Your task to perform on an android device: turn pop-ups off in chrome Image 0: 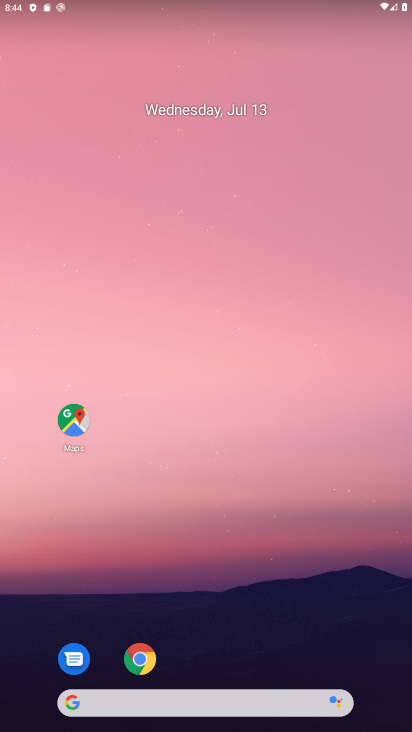
Step 0: click (136, 660)
Your task to perform on an android device: turn pop-ups off in chrome Image 1: 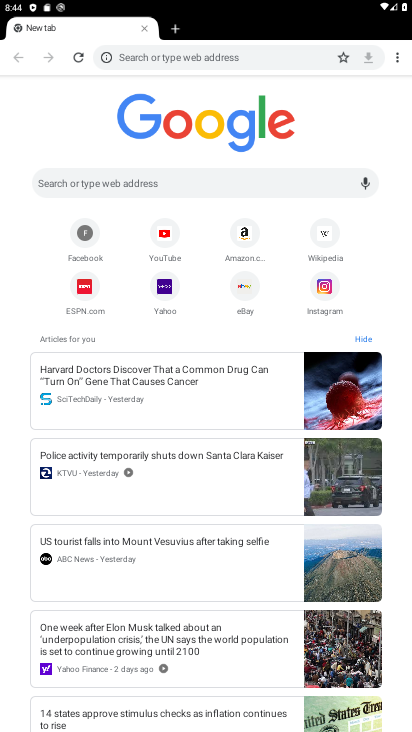
Step 1: click (393, 65)
Your task to perform on an android device: turn pop-ups off in chrome Image 2: 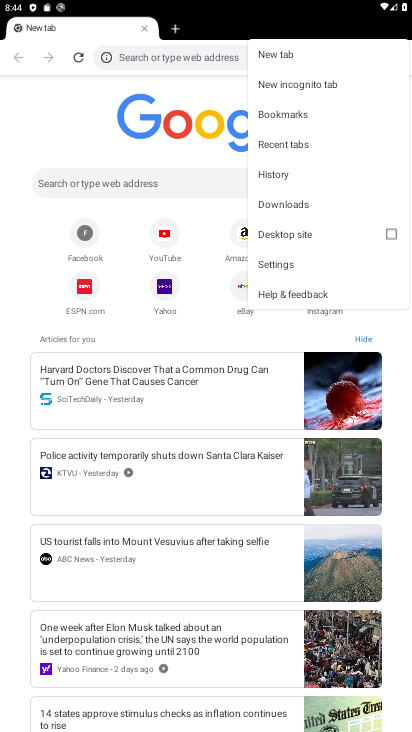
Step 2: click (302, 274)
Your task to perform on an android device: turn pop-ups off in chrome Image 3: 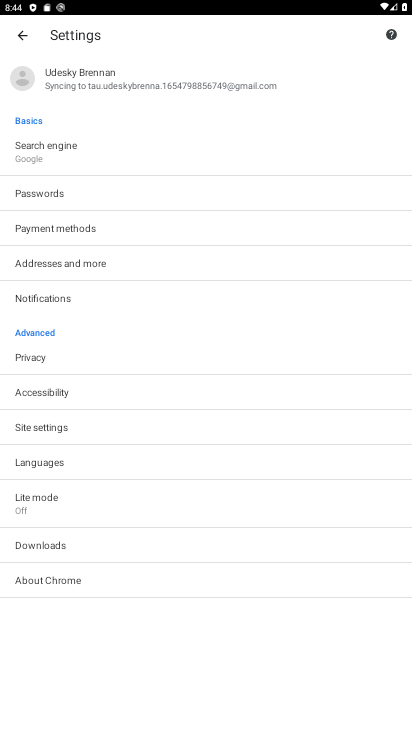
Step 3: click (58, 430)
Your task to perform on an android device: turn pop-ups off in chrome Image 4: 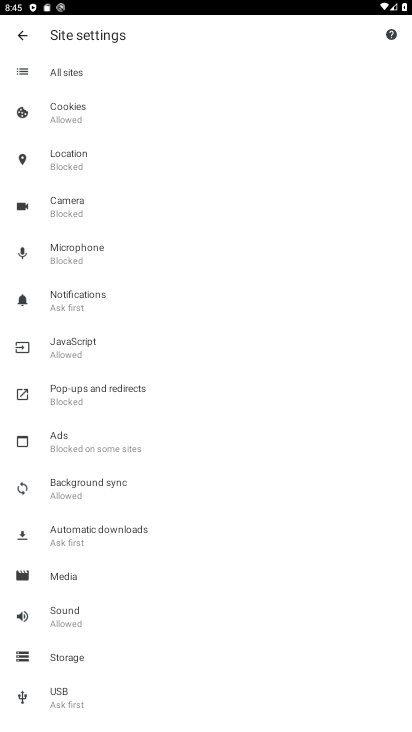
Step 4: click (78, 403)
Your task to perform on an android device: turn pop-ups off in chrome Image 5: 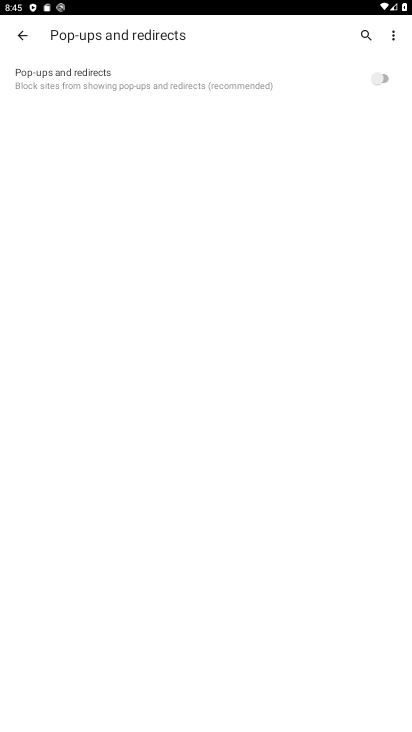
Step 5: task complete